Your task to perform on an android device: Show me the alarms in the clock app Image 0: 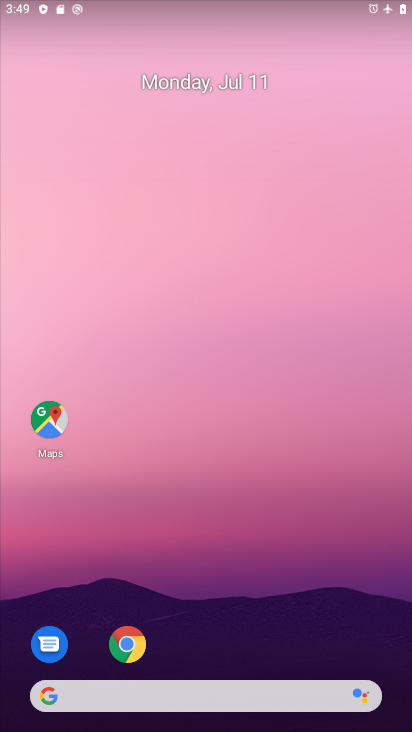
Step 0: drag from (333, 281) to (302, 69)
Your task to perform on an android device: Show me the alarms in the clock app Image 1: 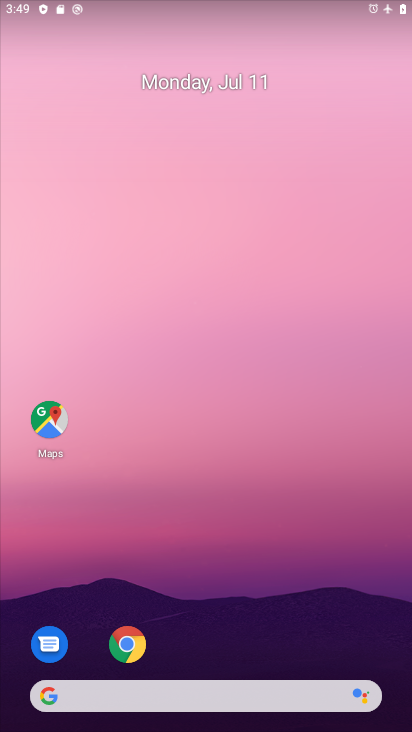
Step 1: drag from (215, 586) to (278, 0)
Your task to perform on an android device: Show me the alarms in the clock app Image 2: 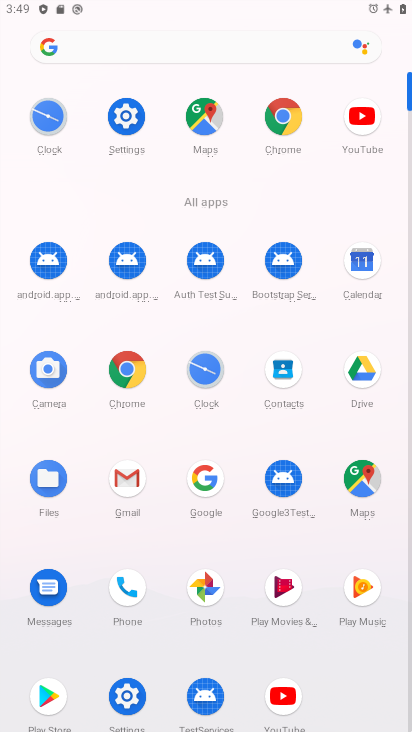
Step 2: click (54, 121)
Your task to perform on an android device: Show me the alarms in the clock app Image 3: 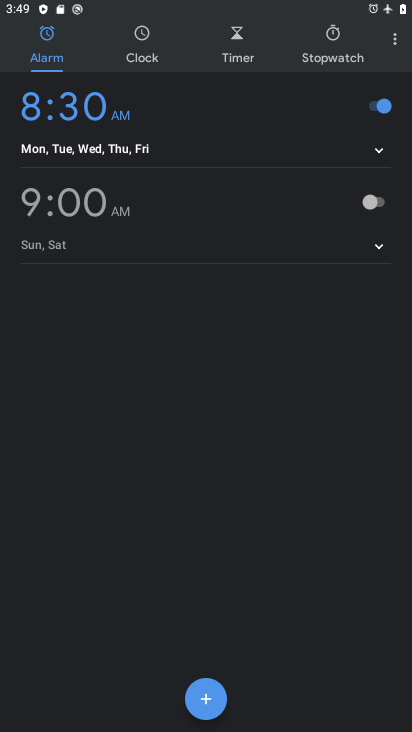
Step 3: task complete